Your task to perform on an android device: make emails show in primary in the gmail app Image 0: 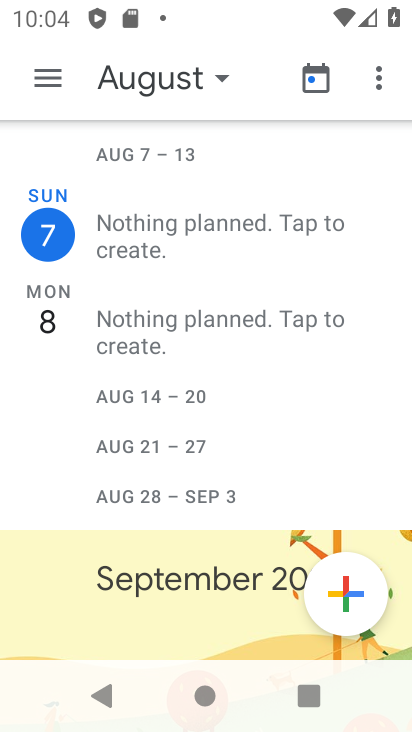
Step 0: press home button
Your task to perform on an android device: make emails show in primary in the gmail app Image 1: 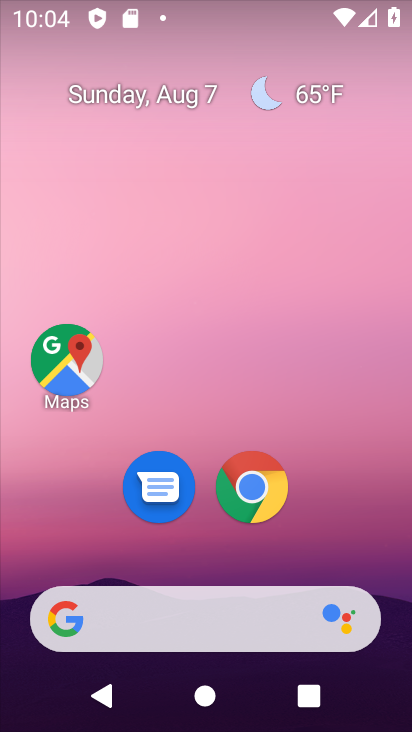
Step 1: drag from (358, 553) to (222, 52)
Your task to perform on an android device: make emails show in primary in the gmail app Image 2: 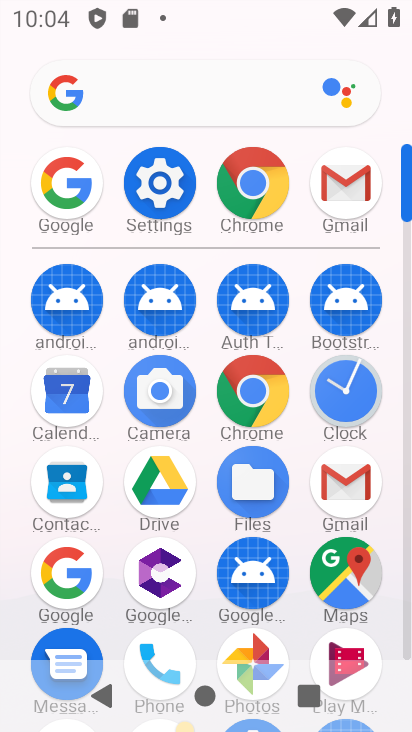
Step 2: click (354, 187)
Your task to perform on an android device: make emails show in primary in the gmail app Image 3: 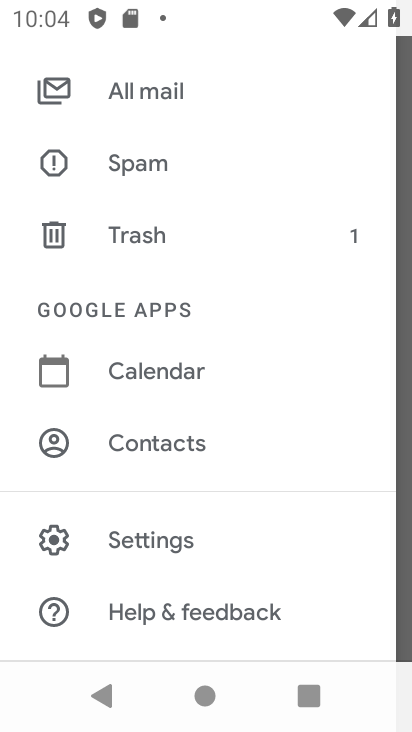
Step 3: click (112, 537)
Your task to perform on an android device: make emails show in primary in the gmail app Image 4: 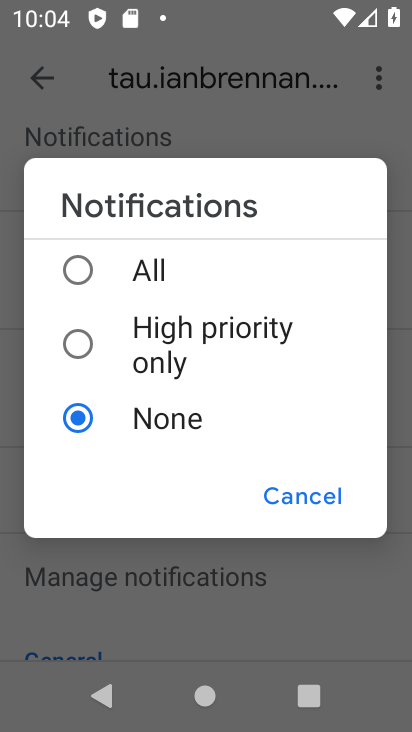
Step 4: click (273, 493)
Your task to perform on an android device: make emails show in primary in the gmail app Image 5: 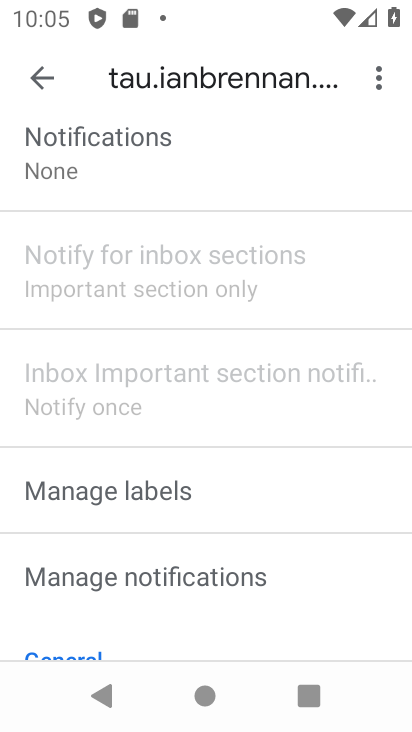
Step 5: drag from (193, 139) to (242, 482)
Your task to perform on an android device: make emails show in primary in the gmail app Image 6: 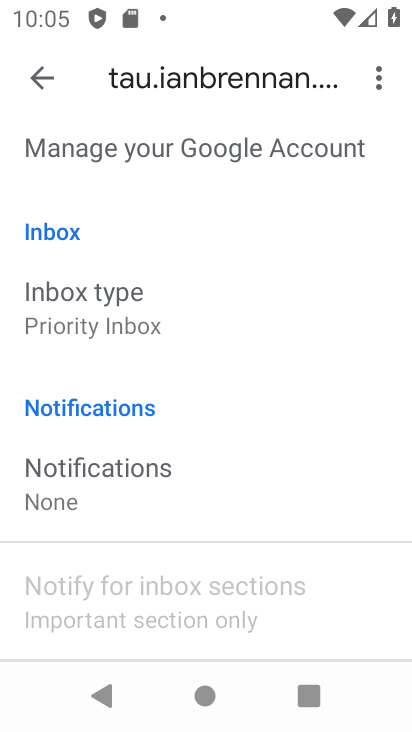
Step 6: click (88, 291)
Your task to perform on an android device: make emails show in primary in the gmail app Image 7: 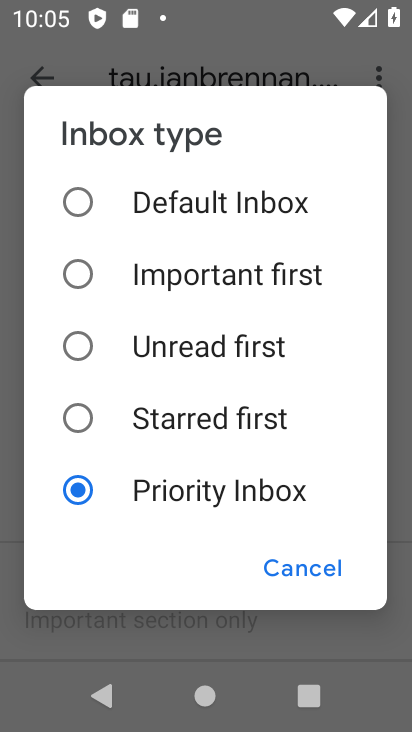
Step 7: click (79, 198)
Your task to perform on an android device: make emails show in primary in the gmail app Image 8: 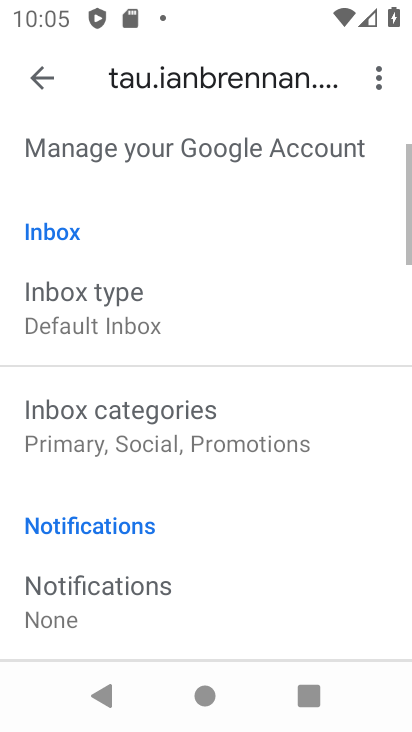
Step 8: click (57, 447)
Your task to perform on an android device: make emails show in primary in the gmail app Image 9: 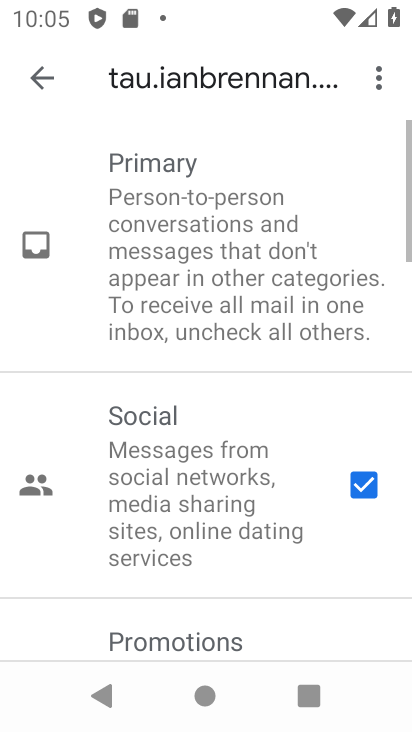
Step 9: click (367, 479)
Your task to perform on an android device: make emails show in primary in the gmail app Image 10: 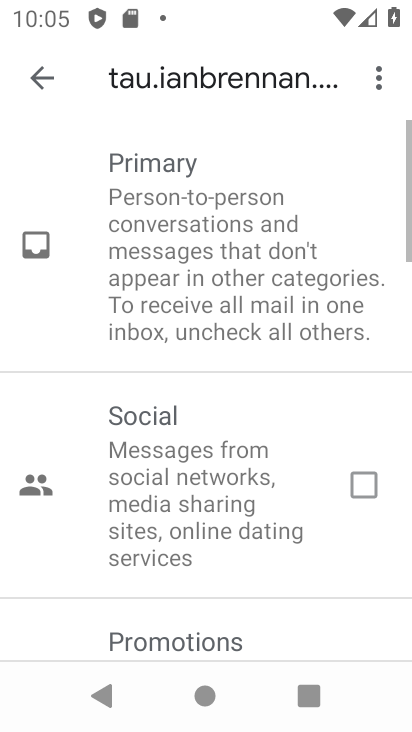
Step 10: drag from (278, 554) to (240, 147)
Your task to perform on an android device: make emails show in primary in the gmail app Image 11: 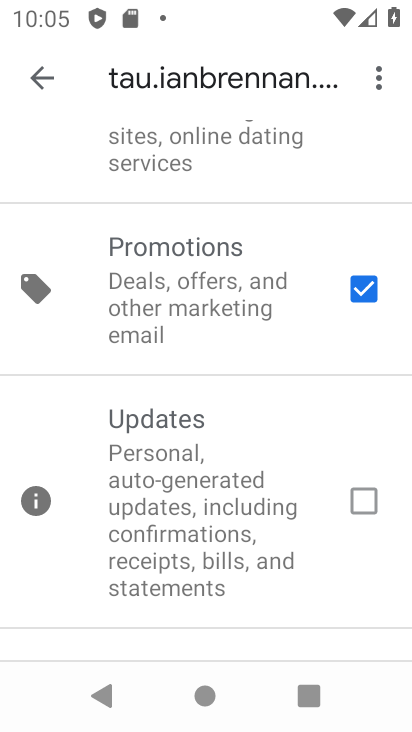
Step 11: click (346, 271)
Your task to perform on an android device: make emails show in primary in the gmail app Image 12: 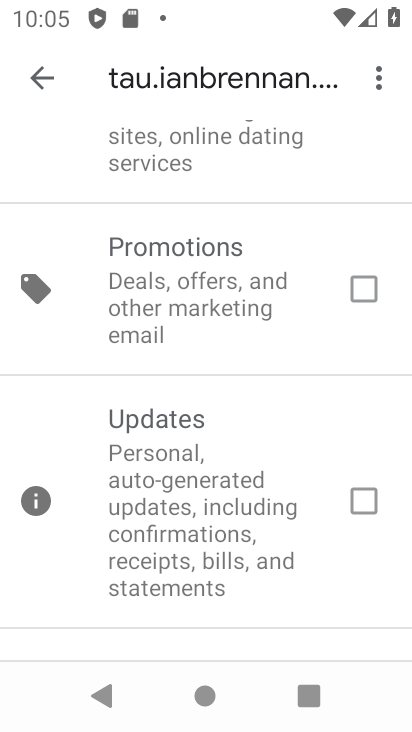
Step 12: click (46, 71)
Your task to perform on an android device: make emails show in primary in the gmail app Image 13: 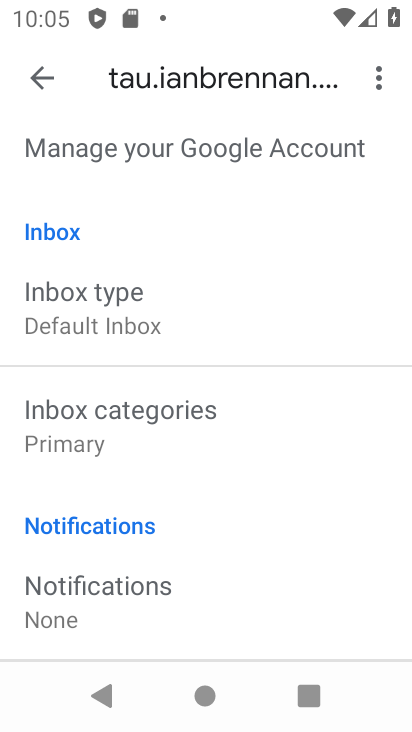
Step 13: task complete